Your task to perform on an android device: choose inbox layout in the gmail app Image 0: 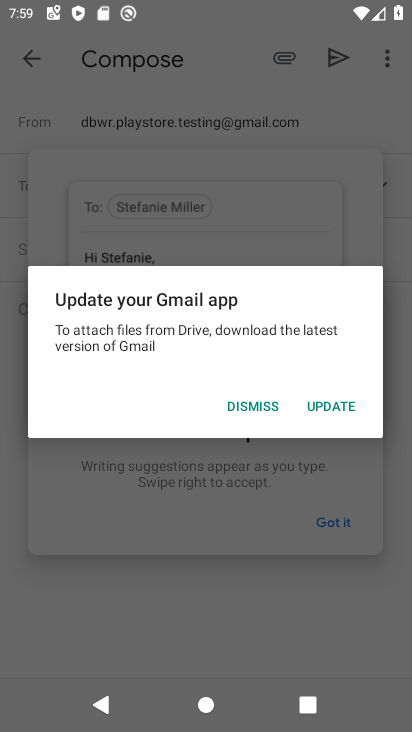
Step 0: press home button
Your task to perform on an android device: choose inbox layout in the gmail app Image 1: 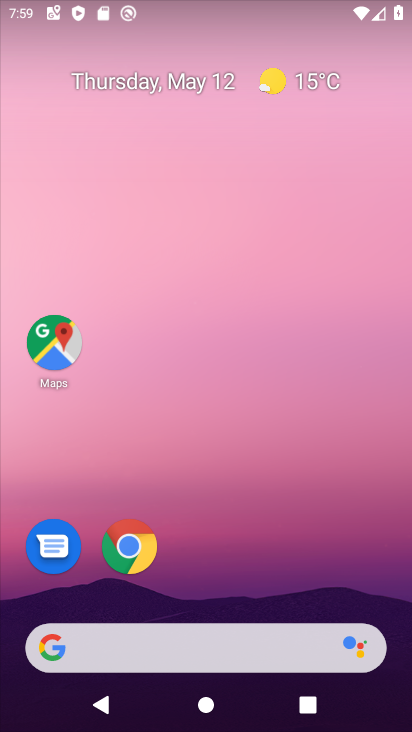
Step 1: drag from (227, 644) to (342, 178)
Your task to perform on an android device: choose inbox layout in the gmail app Image 2: 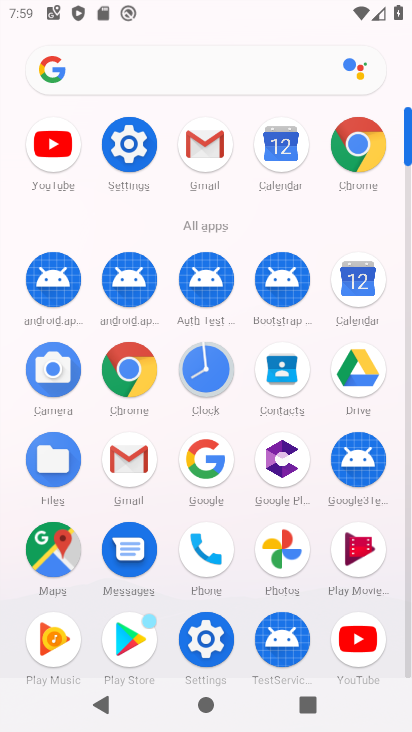
Step 2: click (209, 158)
Your task to perform on an android device: choose inbox layout in the gmail app Image 3: 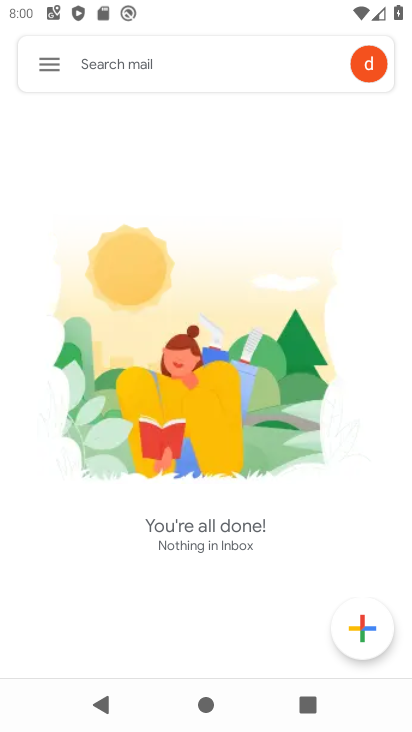
Step 3: click (51, 61)
Your task to perform on an android device: choose inbox layout in the gmail app Image 4: 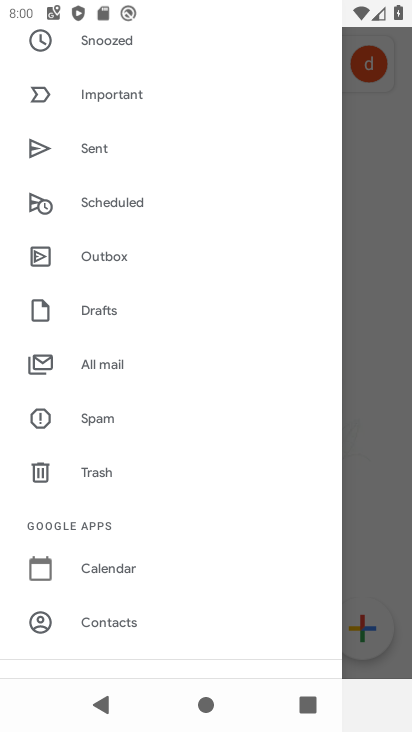
Step 4: drag from (188, 545) to (244, 169)
Your task to perform on an android device: choose inbox layout in the gmail app Image 5: 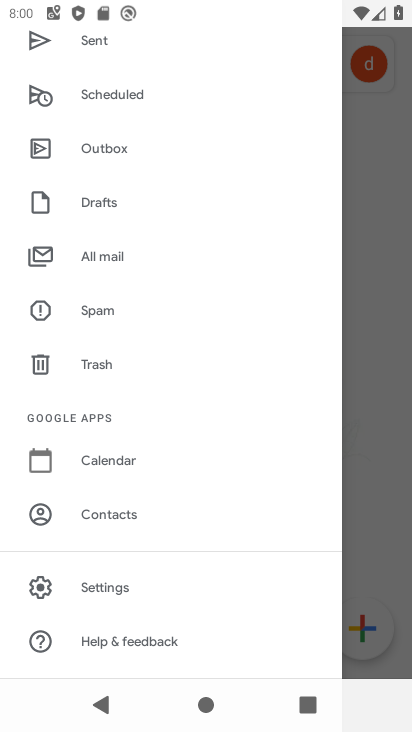
Step 5: click (115, 595)
Your task to perform on an android device: choose inbox layout in the gmail app Image 6: 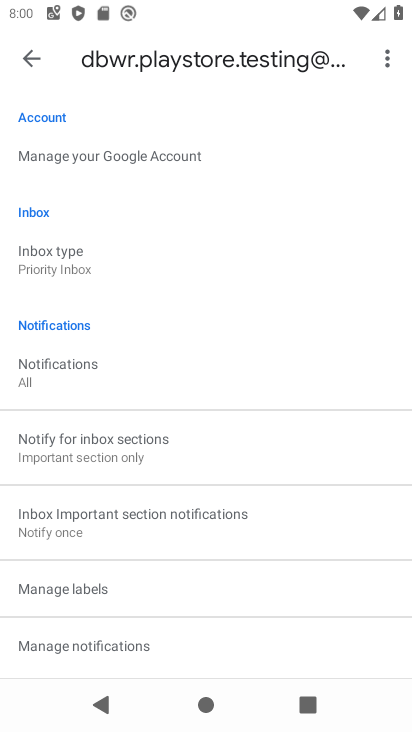
Step 6: click (70, 258)
Your task to perform on an android device: choose inbox layout in the gmail app Image 7: 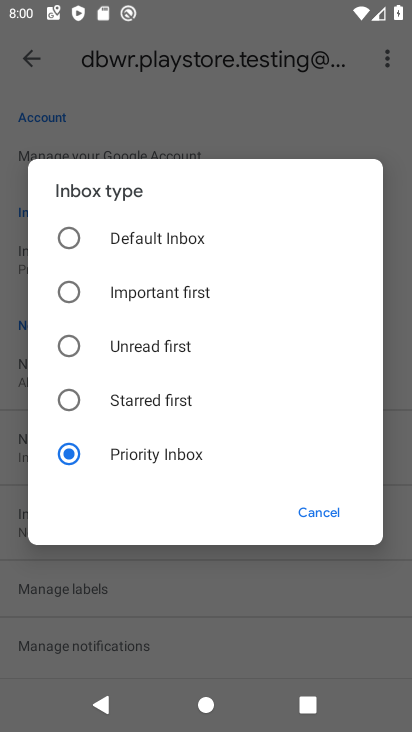
Step 7: click (73, 289)
Your task to perform on an android device: choose inbox layout in the gmail app Image 8: 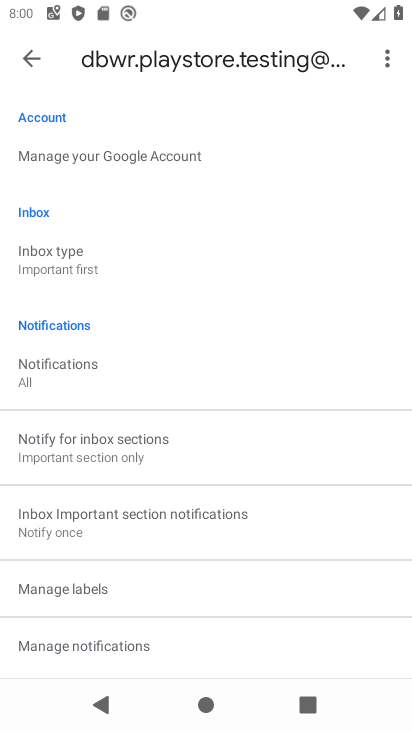
Step 8: task complete